Your task to perform on an android device: Turn off the flashlight Image 0: 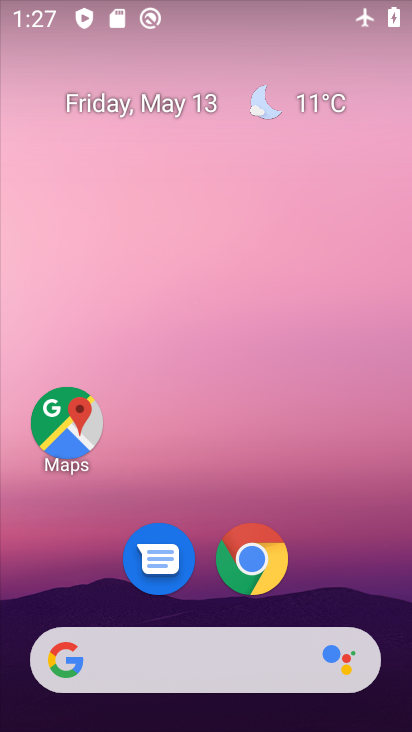
Step 0: drag from (393, 691) to (364, 347)
Your task to perform on an android device: Turn off the flashlight Image 1: 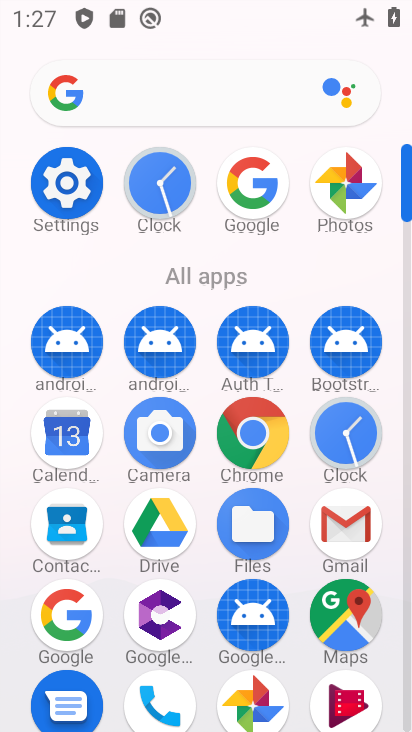
Step 1: click (55, 197)
Your task to perform on an android device: Turn off the flashlight Image 2: 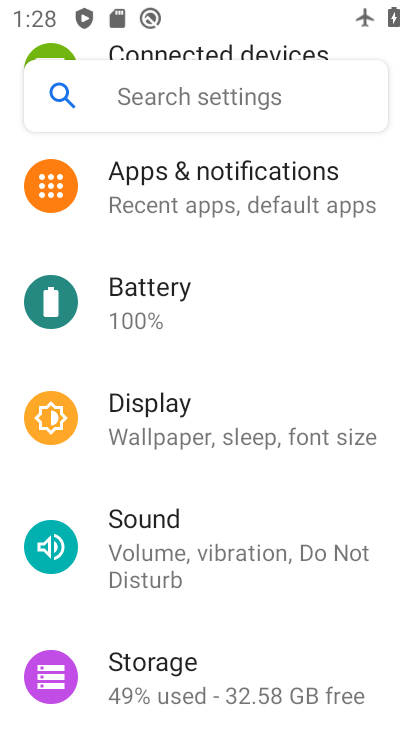
Step 2: click (199, 430)
Your task to perform on an android device: Turn off the flashlight Image 3: 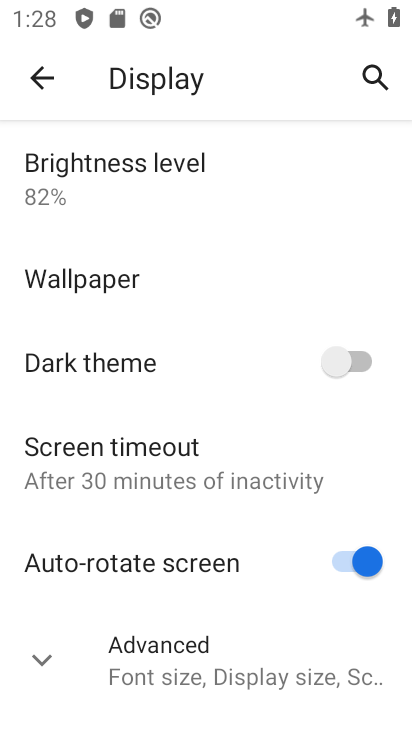
Step 3: task complete